Your task to perform on an android device: Do I have any events this weekend? Image 0: 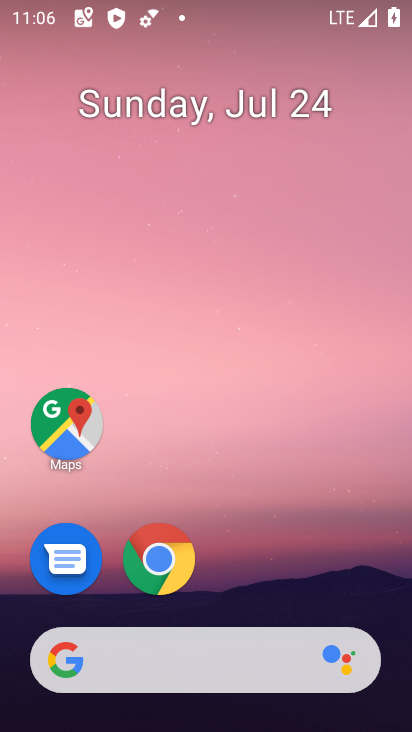
Step 0: drag from (233, 585) to (311, 23)
Your task to perform on an android device: Do I have any events this weekend? Image 1: 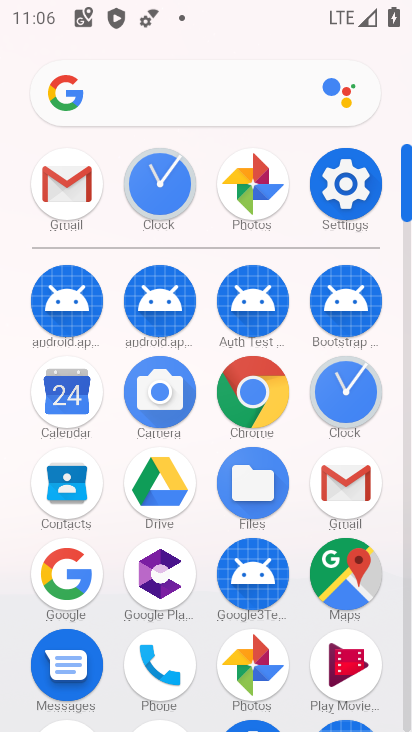
Step 1: click (78, 393)
Your task to perform on an android device: Do I have any events this weekend? Image 2: 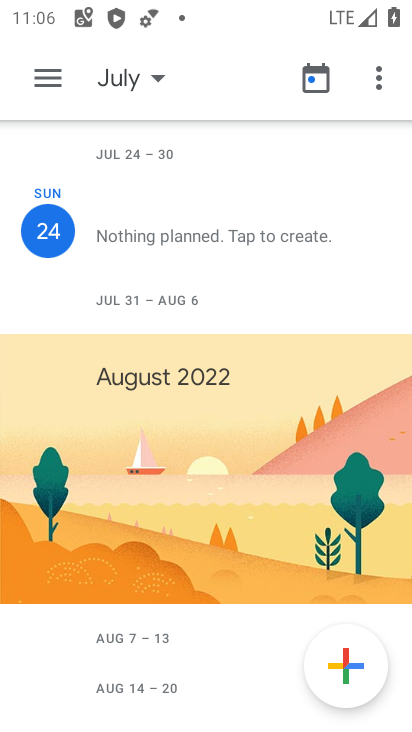
Step 2: click (143, 87)
Your task to perform on an android device: Do I have any events this weekend? Image 3: 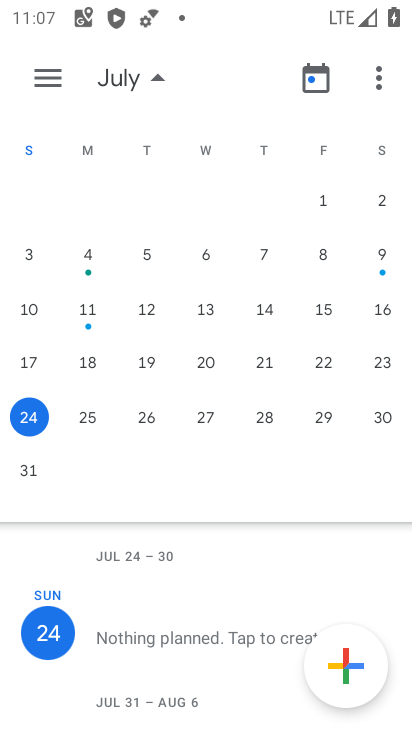
Step 3: drag from (391, 313) to (1, 345)
Your task to perform on an android device: Do I have any events this weekend? Image 4: 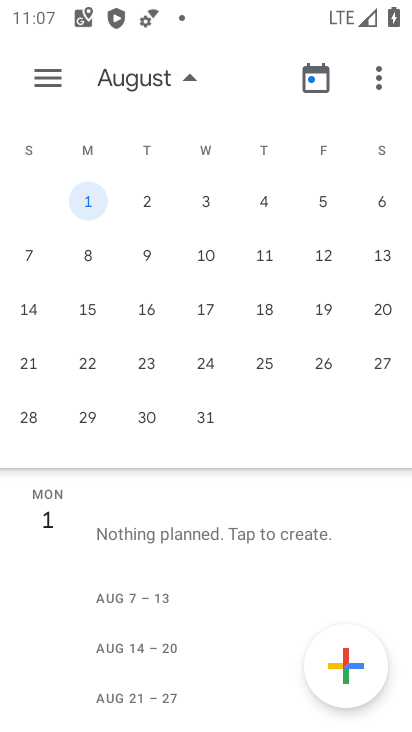
Step 4: drag from (25, 309) to (390, 297)
Your task to perform on an android device: Do I have any events this weekend? Image 5: 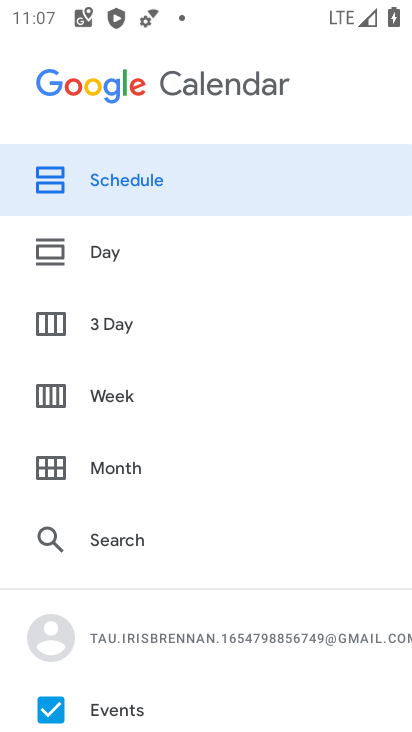
Step 5: drag from (392, 300) to (30, 329)
Your task to perform on an android device: Do I have any events this weekend? Image 6: 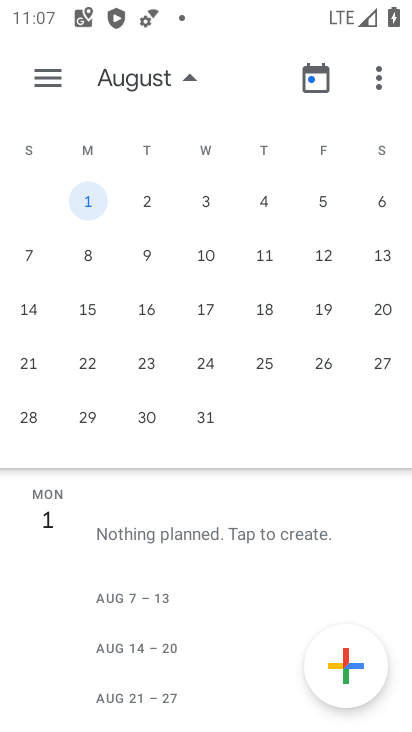
Step 6: drag from (80, 307) to (328, 294)
Your task to perform on an android device: Do I have any events this weekend? Image 7: 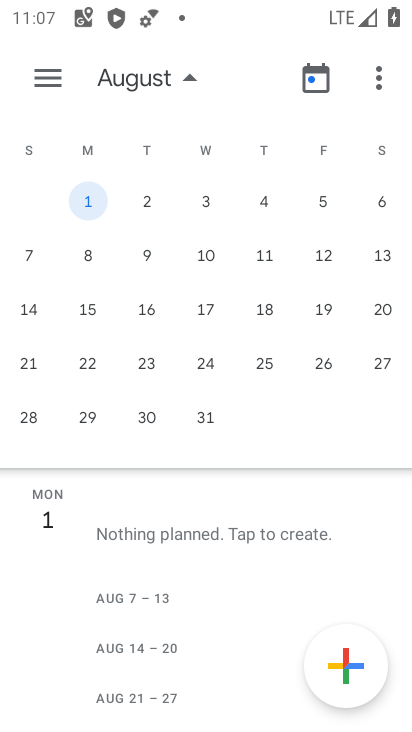
Step 7: drag from (90, 361) to (411, 368)
Your task to perform on an android device: Do I have any events this weekend? Image 8: 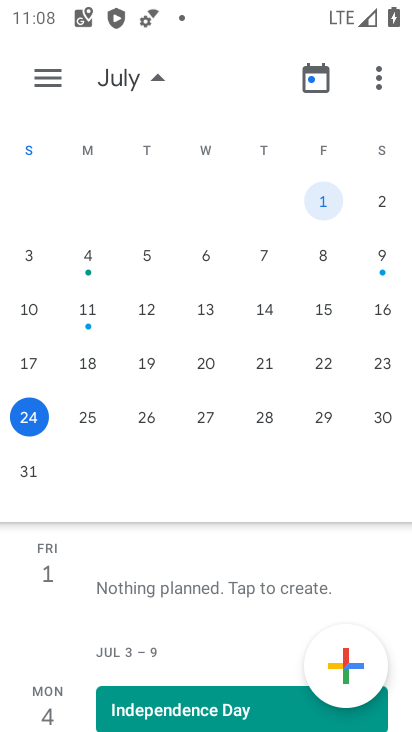
Step 8: click (380, 410)
Your task to perform on an android device: Do I have any events this weekend? Image 9: 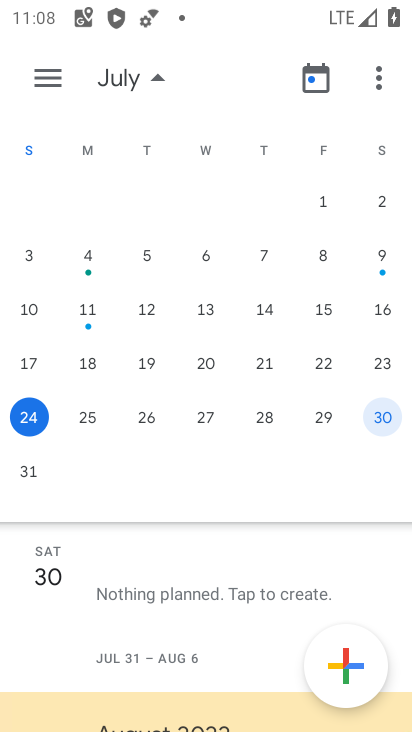
Step 9: task complete